Your task to perform on an android device: change the clock display to analog Image 0: 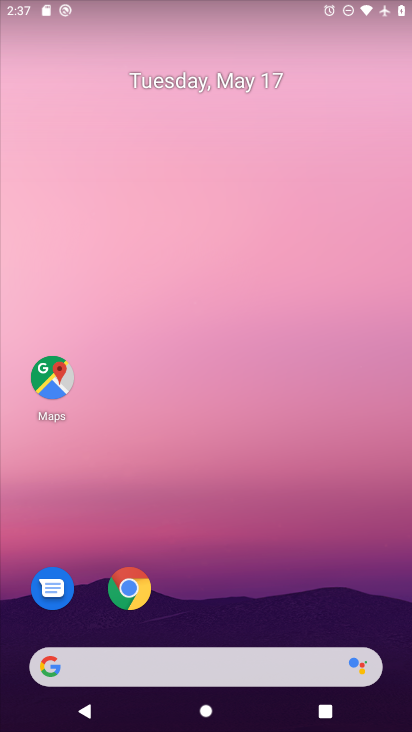
Step 0: drag from (162, 603) to (104, 1)
Your task to perform on an android device: change the clock display to analog Image 1: 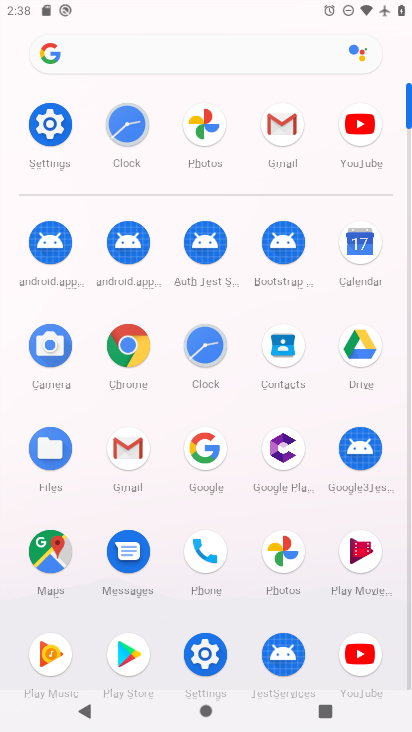
Step 1: click (210, 346)
Your task to perform on an android device: change the clock display to analog Image 2: 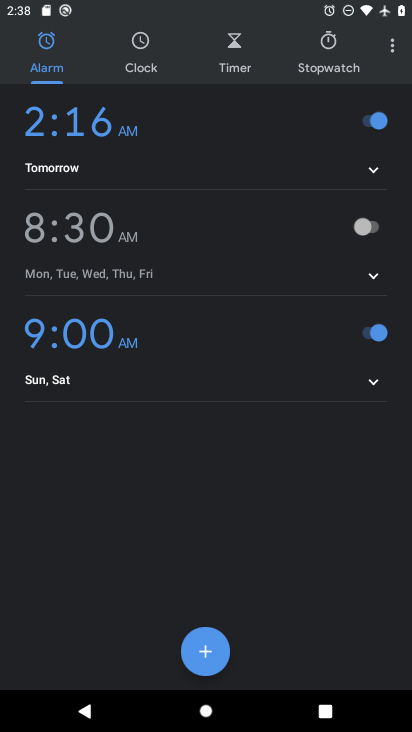
Step 2: click (387, 46)
Your task to perform on an android device: change the clock display to analog Image 3: 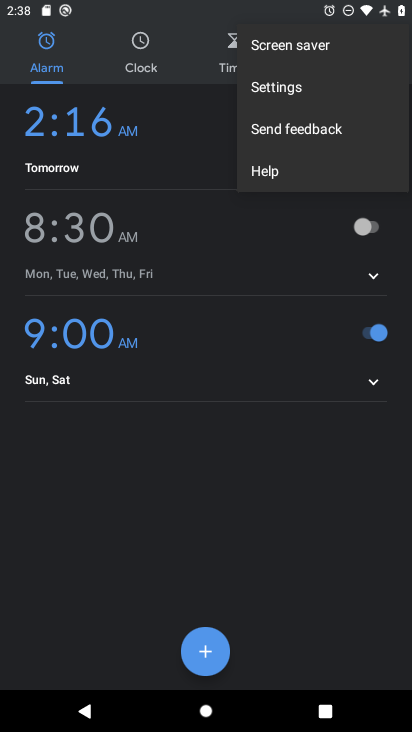
Step 3: click (281, 94)
Your task to perform on an android device: change the clock display to analog Image 4: 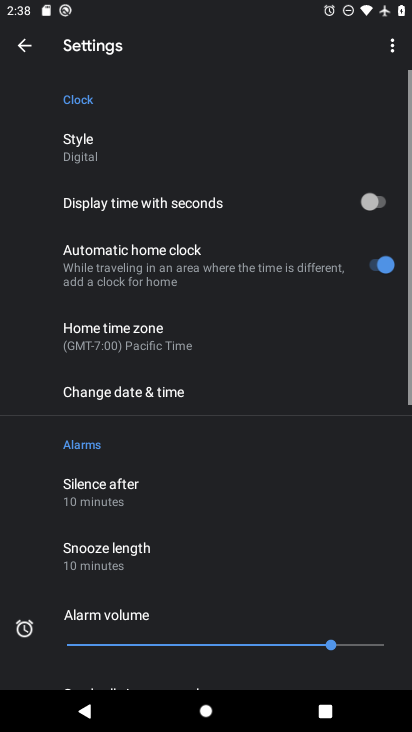
Step 4: click (79, 144)
Your task to perform on an android device: change the clock display to analog Image 5: 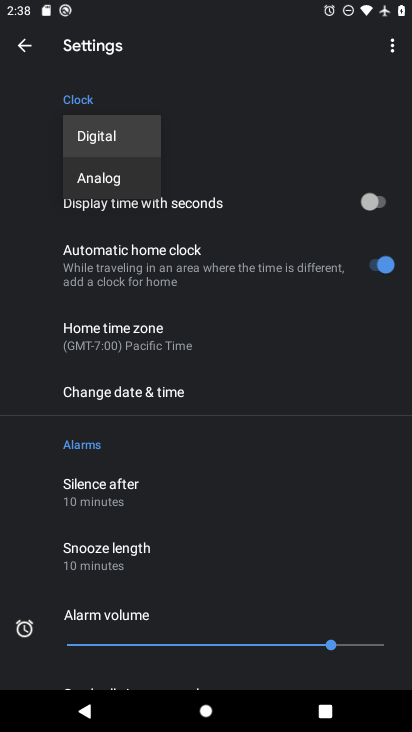
Step 5: click (103, 176)
Your task to perform on an android device: change the clock display to analog Image 6: 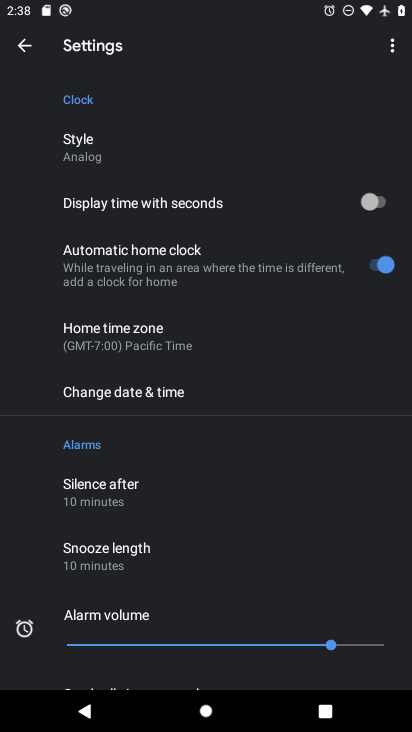
Step 6: task complete